Your task to perform on an android device: Open notification settings Image 0: 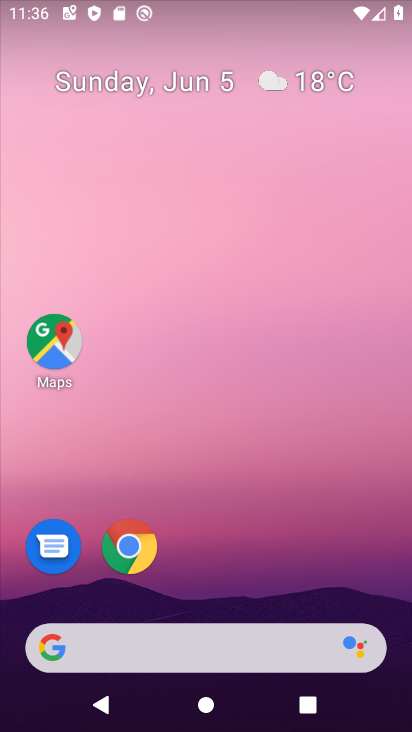
Step 0: drag from (322, 503) to (322, 210)
Your task to perform on an android device: Open notification settings Image 1: 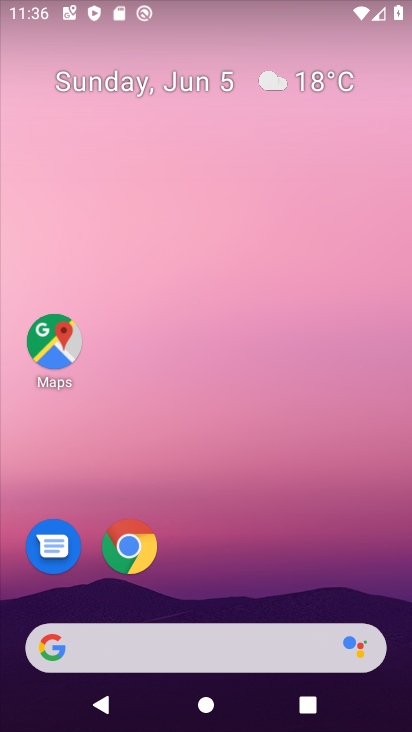
Step 1: drag from (255, 555) to (256, 49)
Your task to perform on an android device: Open notification settings Image 2: 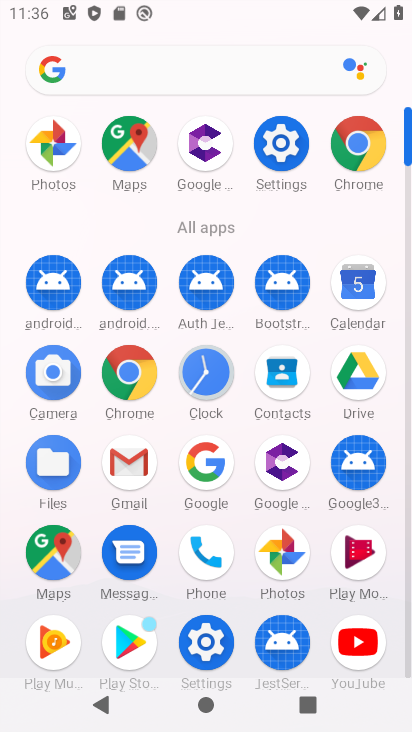
Step 2: click (283, 127)
Your task to perform on an android device: Open notification settings Image 3: 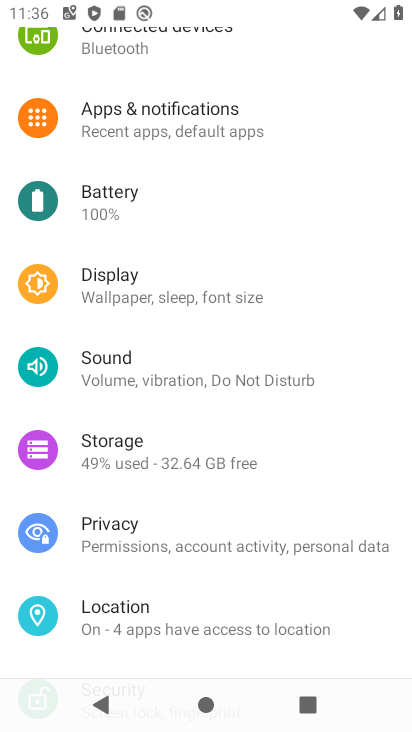
Step 3: click (176, 126)
Your task to perform on an android device: Open notification settings Image 4: 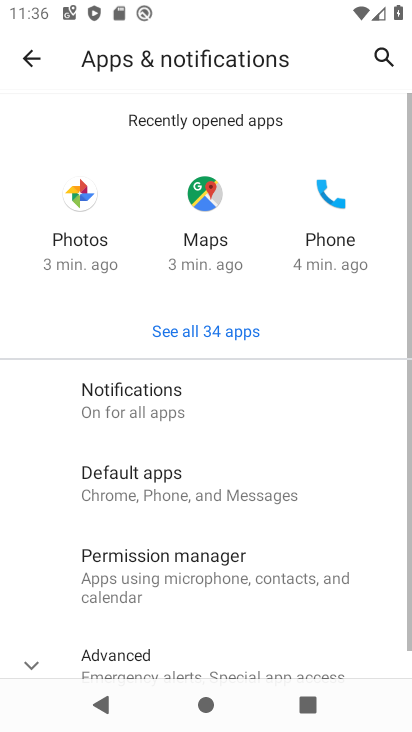
Step 4: task complete